Your task to perform on an android device: turn on wifi Image 0: 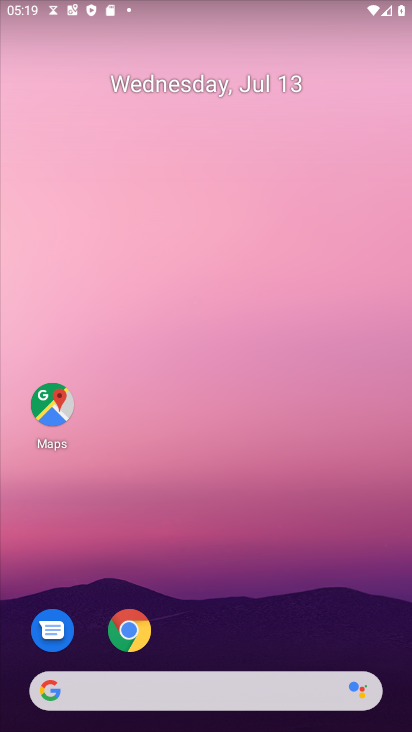
Step 0: drag from (97, 703) to (380, 3)
Your task to perform on an android device: turn on wifi Image 1: 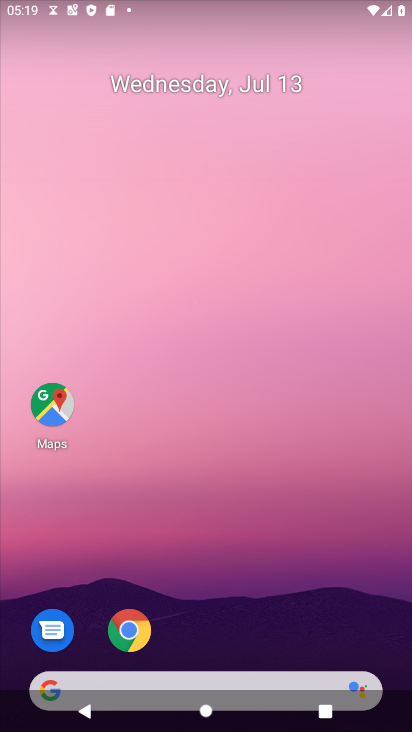
Step 1: drag from (281, 658) to (301, 19)
Your task to perform on an android device: turn on wifi Image 2: 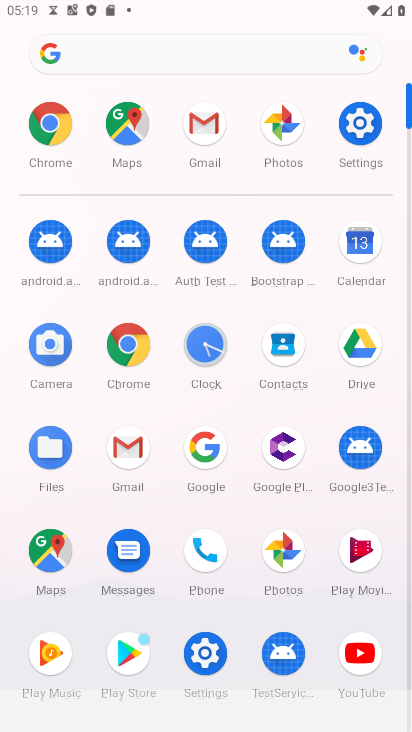
Step 2: click (372, 123)
Your task to perform on an android device: turn on wifi Image 3: 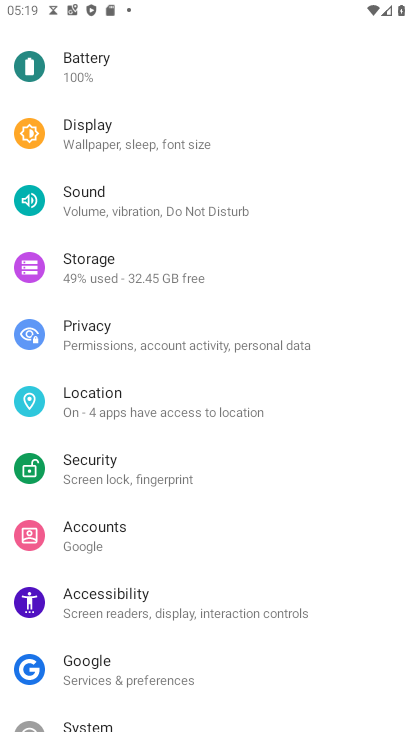
Step 3: drag from (143, 137) to (99, 649)
Your task to perform on an android device: turn on wifi Image 4: 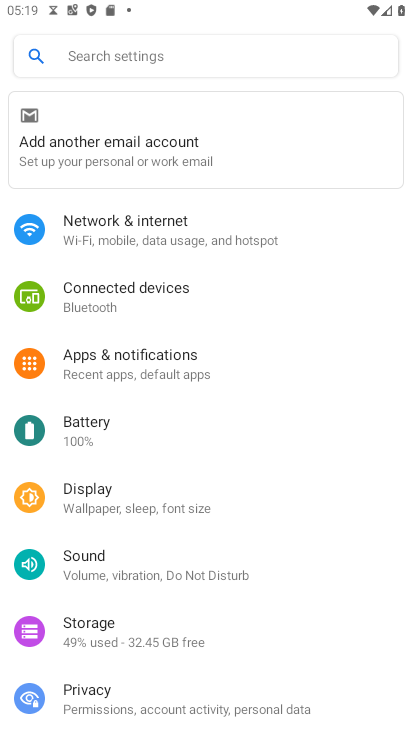
Step 4: click (130, 222)
Your task to perform on an android device: turn on wifi Image 5: 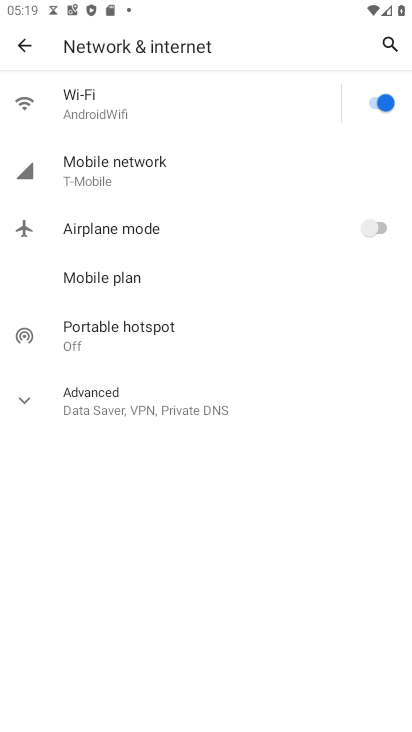
Step 5: task complete